Your task to perform on an android device: Show me popular games on the Play Store Image 0: 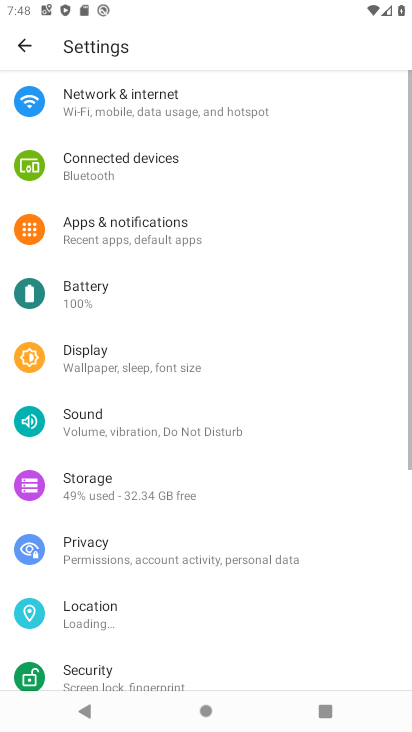
Step 0: press home button
Your task to perform on an android device: Show me popular games on the Play Store Image 1: 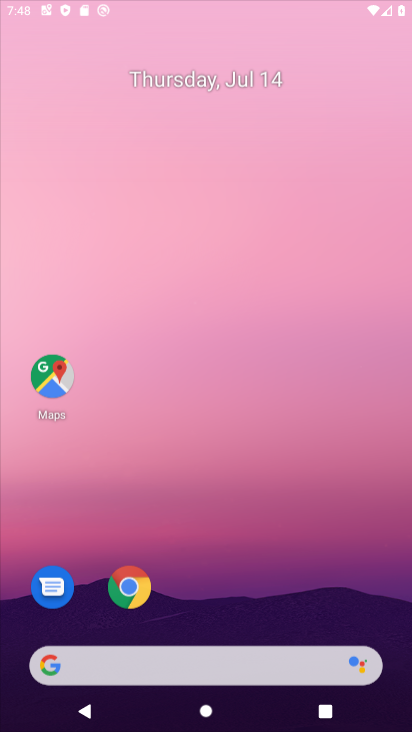
Step 1: drag from (353, 647) to (177, 39)
Your task to perform on an android device: Show me popular games on the Play Store Image 2: 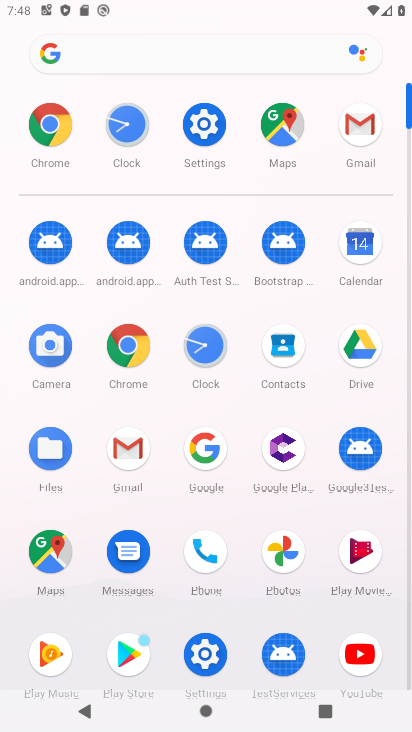
Step 2: click (134, 644)
Your task to perform on an android device: Show me popular games on the Play Store Image 3: 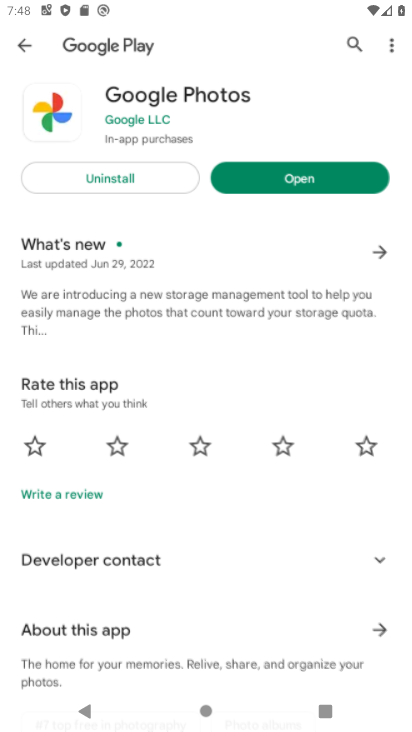
Step 3: press back button
Your task to perform on an android device: Show me popular games on the Play Store Image 4: 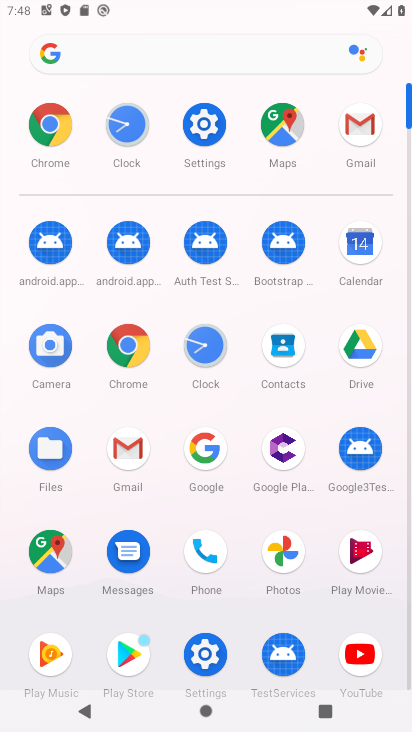
Step 4: click (138, 650)
Your task to perform on an android device: Show me popular games on the Play Store Image 5: 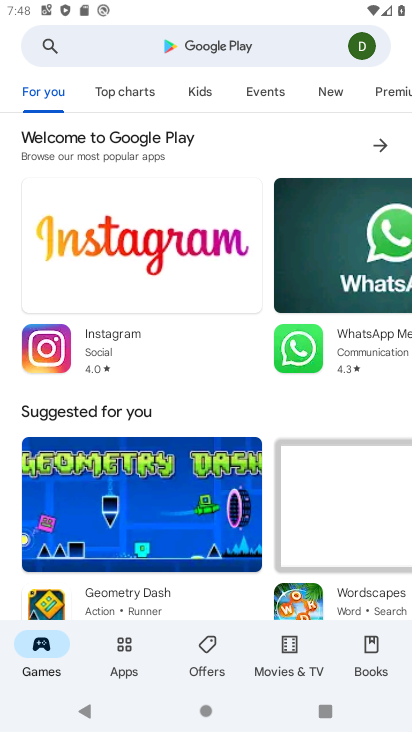
Step 5: click (176, 52)
Your task to perform on an android device: Show me popular games on the Play Store Image 6: 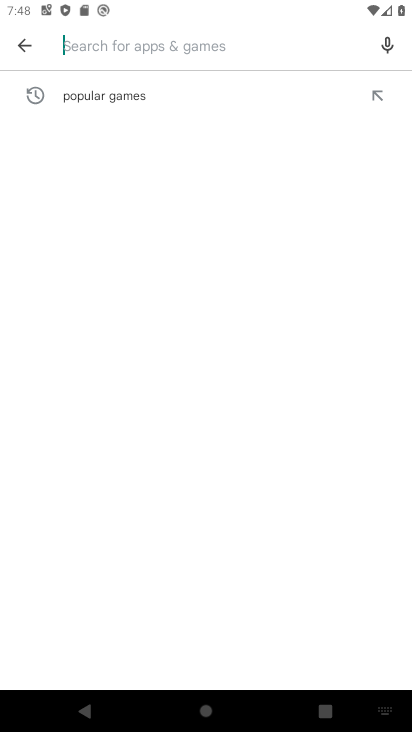
Step 6: click (107, 98)
Your task to perform on an android device: Show me popular games on the Play Store Image 7: 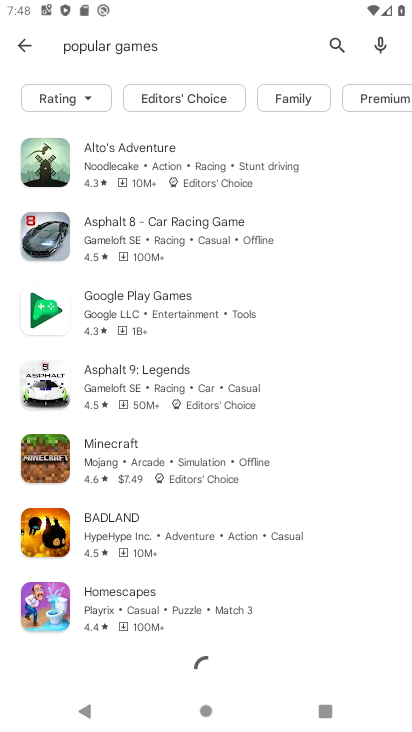
Step 7: task complete